Your task to perform on an android device: Go to display settings Image 0: 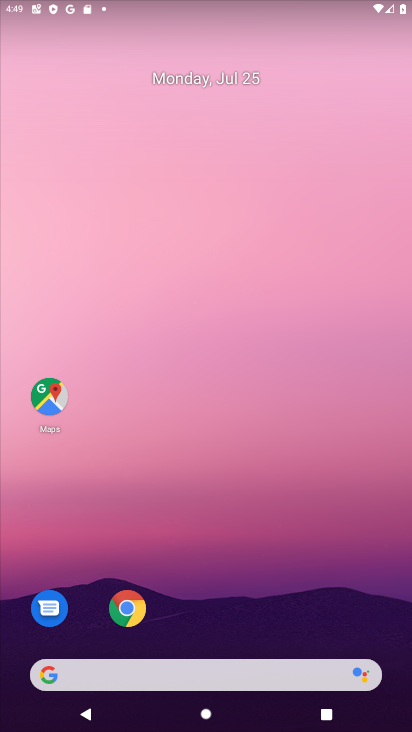
Step 0: drag from (205, 643) to (220, 3)
Your task to perform on an android device: Go to display settings Image 1: 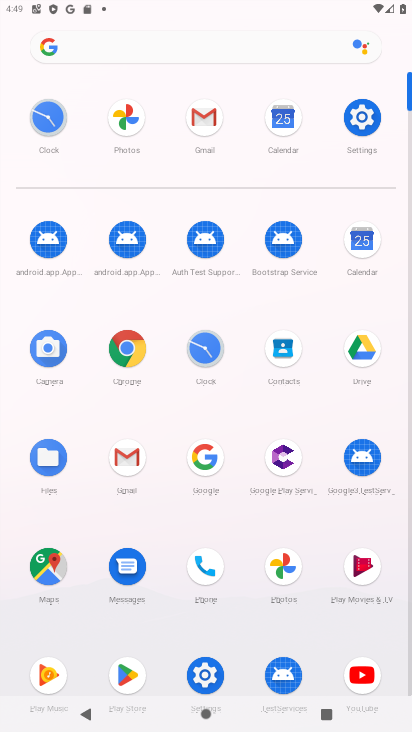
Step 1: click (359, 118)
Your task to perform on an android device: Go to display settings Image 2: 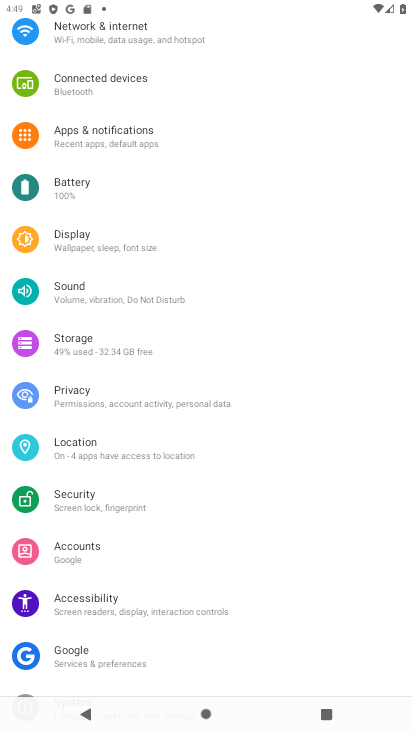
Step 2: click (124, 239)
Your task to perform on an android device: Go to display settings Image 3: 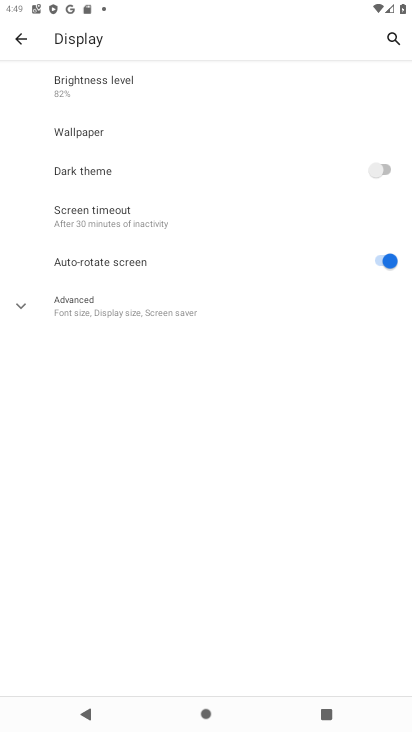
Step 3: click (17, 307)
Your task to perform on an android device: Go to display settings Image 4: 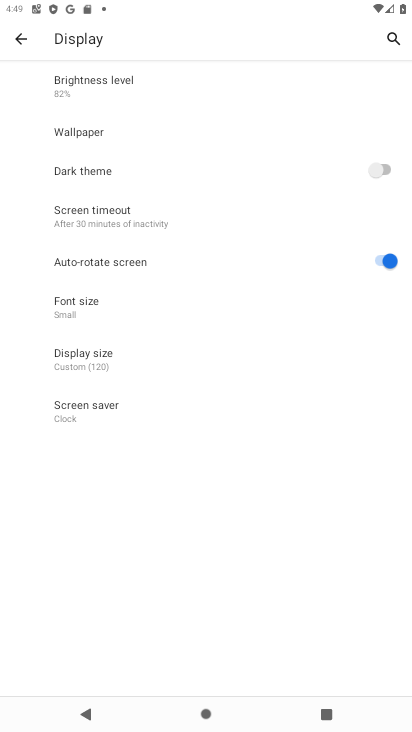
Step 4: task complete